Your task to perform on an android device: turn off location Image 0: 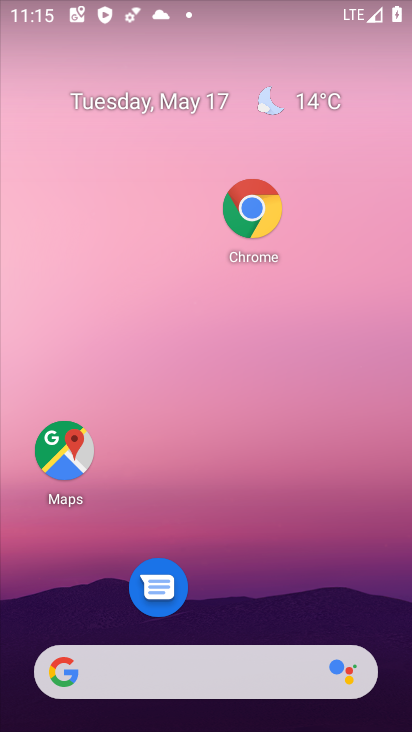
Step 0: drag from (268, 581) to (272, 60)
Your task to perform on an android device: turn off location Image 1: 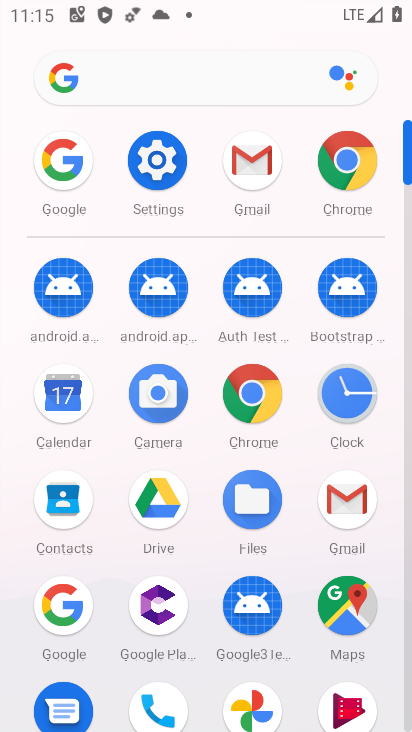
Step 1: drag from (302, 583) to (306, 285)
Your task to perform on an android device: turn off location Image 2: 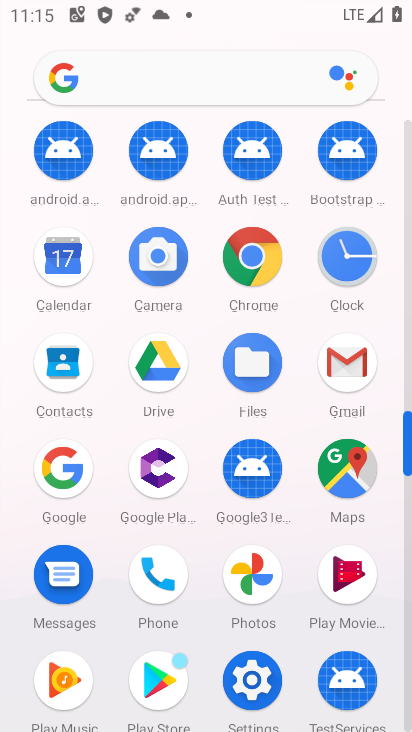
Step 2: drag from (296, 657) to (290, 482)
Your task to perform on an android device: turn off location Image 3: 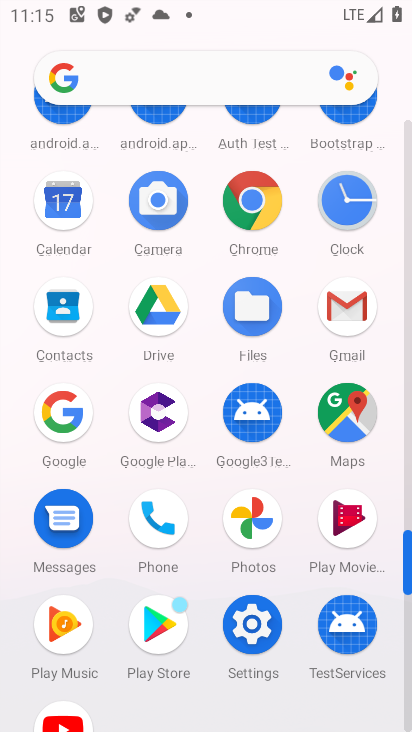
Step 3: click (252, 604)
Your task to perform on an android device: turn off location Image 4: 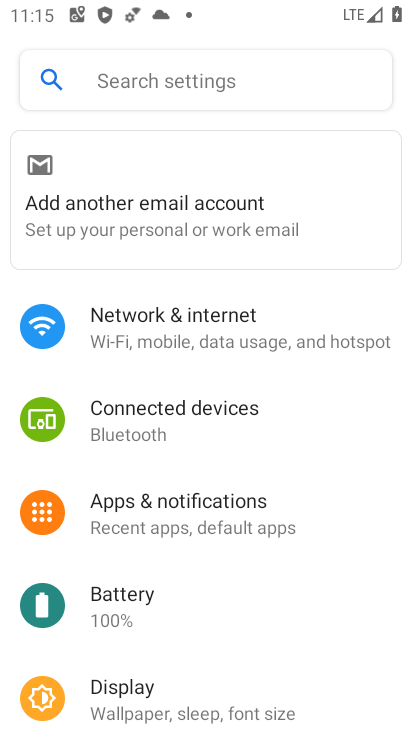
Step 4: drag from (276, 655) to (255, 264)
Your task to perform on an android device: turn off location Image 5: 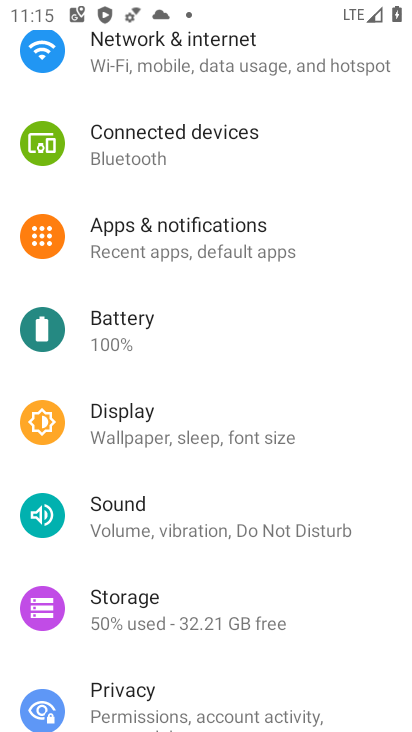
Step 5: drag from (273, 614) to (280, 234)
Your task to perform on an android device: turn off location Image 6: 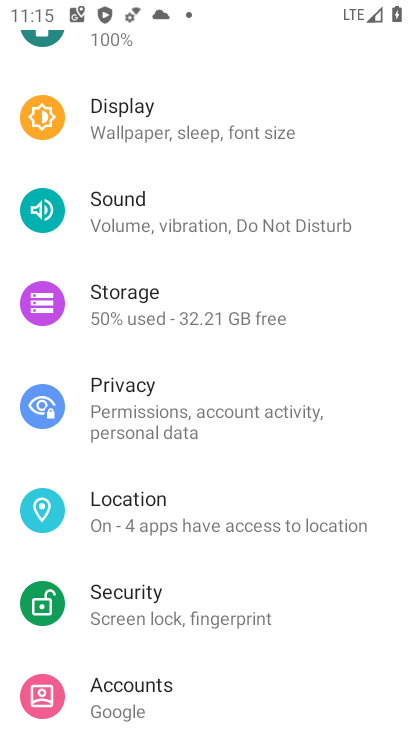
Step 6: click (245, 522)
Your task to perform on an android device: turn off location Image 7: 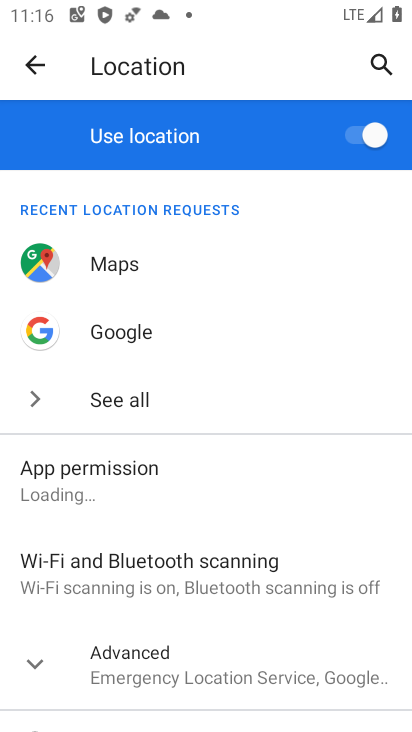
Step 7: click (355, 127)
Your task to perform on an android device: turn off location Image 8: 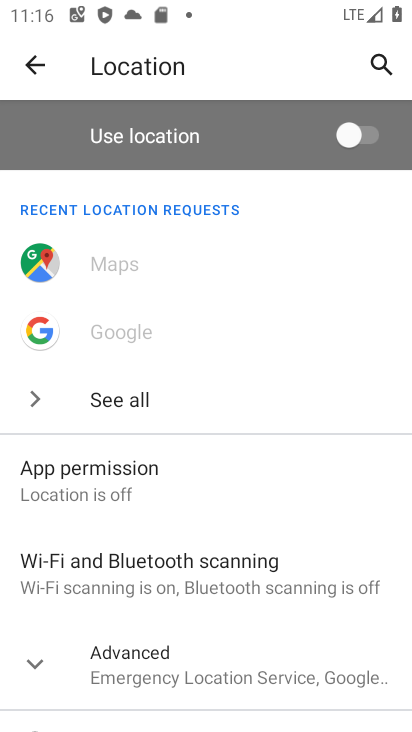
Step 8: task complete